Your task to perform on an android device: Toggle the flashlight Image 0: 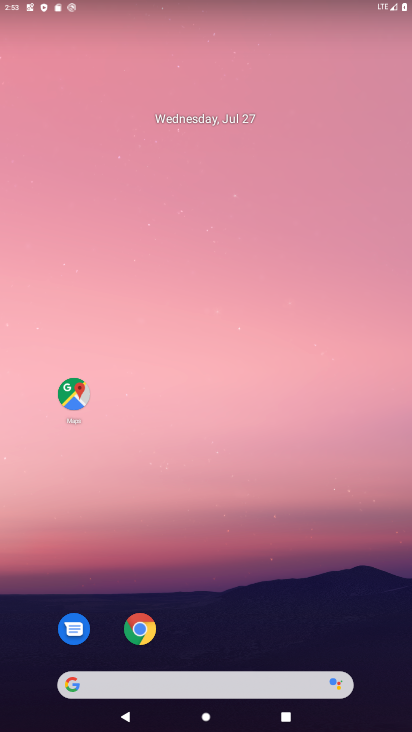
Step 0: drag from (219, 653) to (232, 210)
Your task to perform on an android device: Toggle the flashlight Image 1: 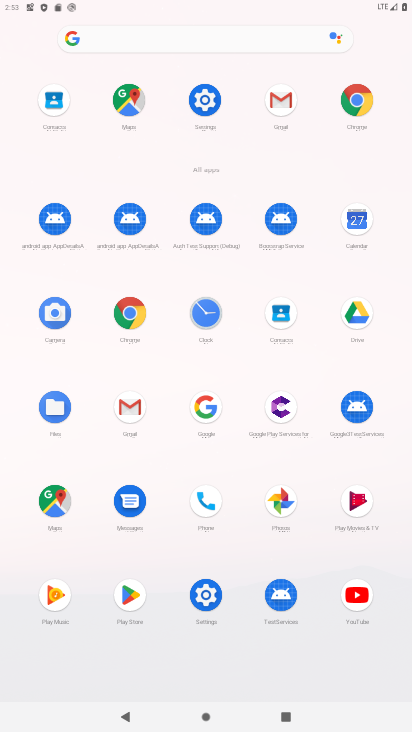
Step 1: click (193, 93)
Your task to perform on an android device: Toggle the flashlight Image 2: 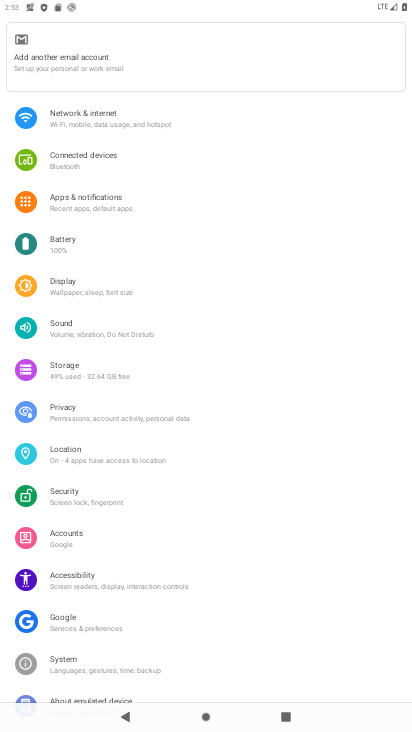
Step 2: task complete